Your task to perform on an android device: stop showing notifications on the lock screen Image 0: 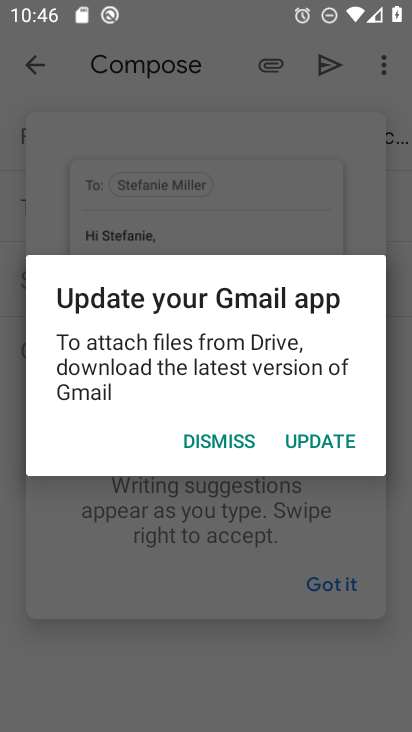
Step 0: press home button
Your task to perform on an android device: stop showing notifications on the lock screen Image 1: 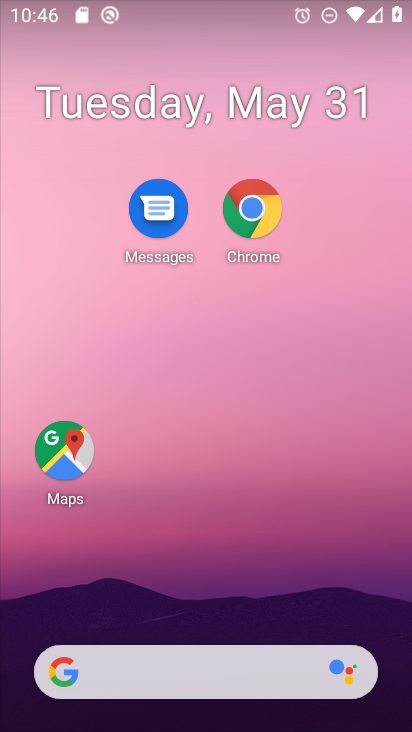
Step 1: drag from (220, 632) to (213, 109)
Your task to perform on an android device: stop showing notifications on the lock screen Image 2: 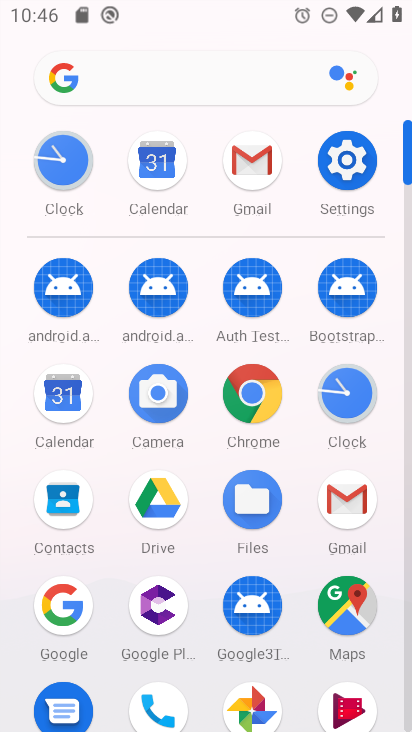
Step 2: click (349, 147)
Your task to perform on an android device: stop showing notifications on the lock screen Image 3: 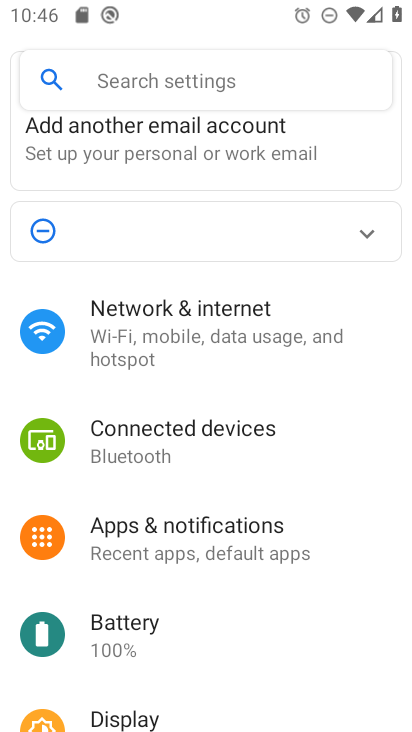
Step 3: click (214, 537)
Your task to perform on an android device: stop showing notifications on the lock screen Image 4: 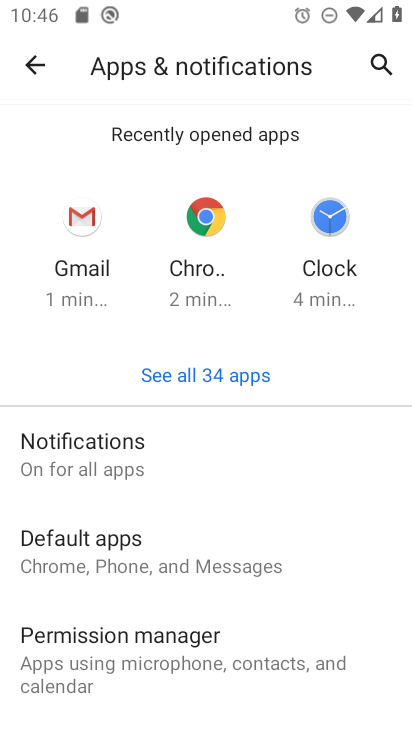
Step 4: click (164, 453)
Your task to perform on an android device: stop showing notifications on the lock screen Image 5: 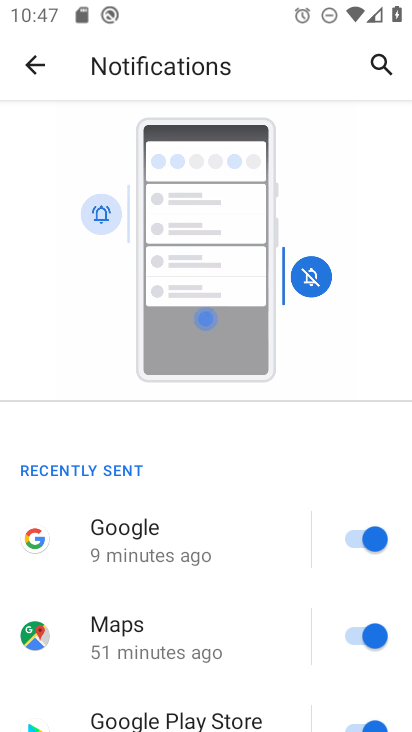
Step 5: drag from (255, 666) to (240, 384)
Your task to perform on an android device: stop showing notifications on the lock screen Image 6: 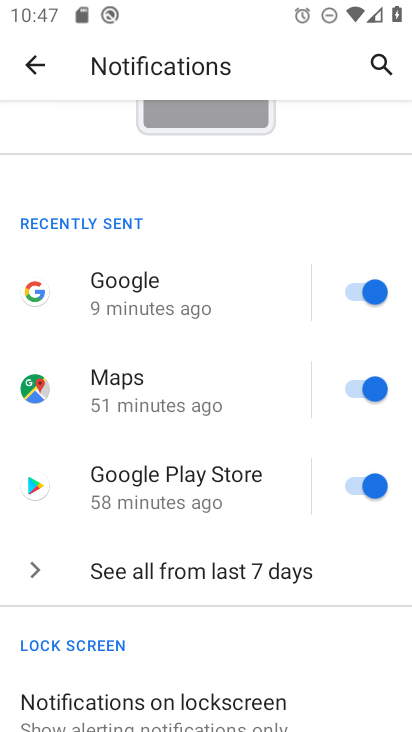
Step 6: click (232, 693)
Your task to perform on an android device: stop showing notifications on the lock screen Image 7: 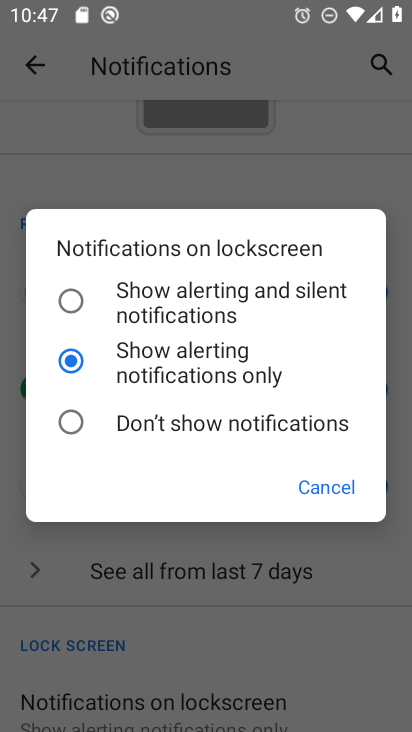
Step 7: click (71, 416)
Your task to perform on an android device: stop showing notifications on the lock screen Image 8: 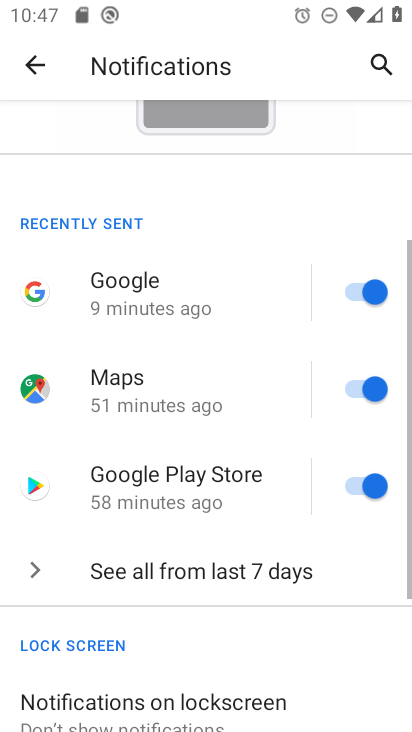
Step 8: task complete